Your task to perform on an android device: toggle data saver in the chrome app Image 0: 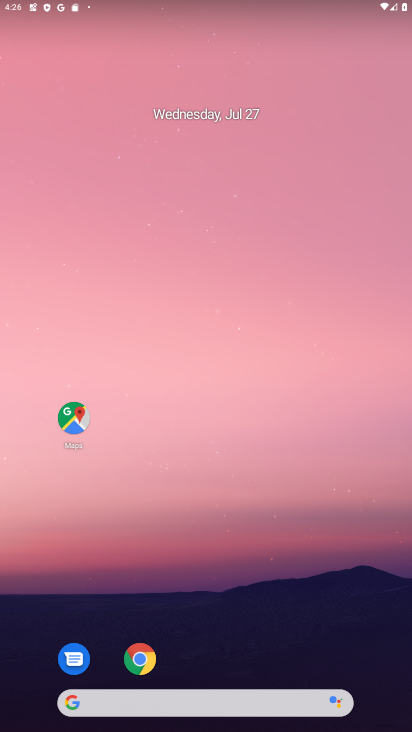
Step 0: click (148, 658)
Your task to perform on an android device: toggle data saver in the chrome app Image 1: 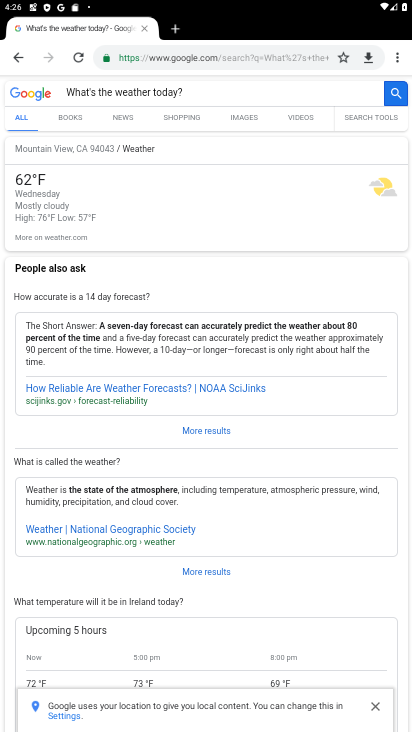
Step 1: click (400, 53)
Your task to perform on an android device: toggle data saver in the chrome app Image 2: 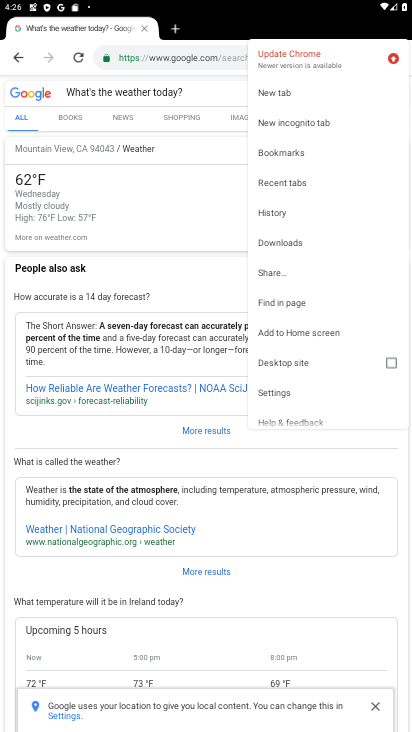
Step 2: click (314, 386)
Your task to perform on an android device: toggle data saver in the chrome app Image 3: 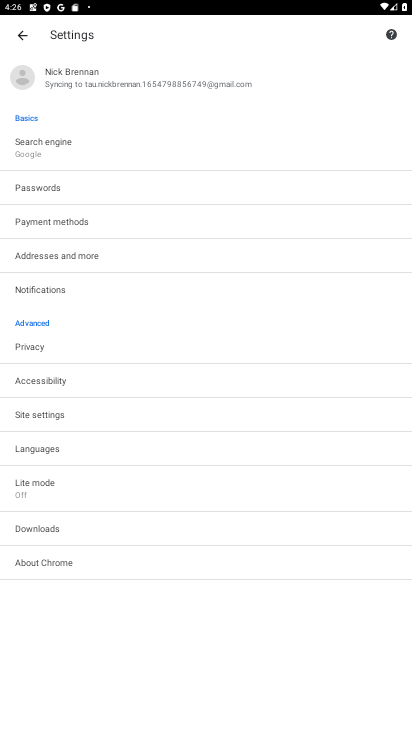
Step 3: click (140, 478)
Your task to perform on an android device: toggle data saver in the chrome app Image 4: 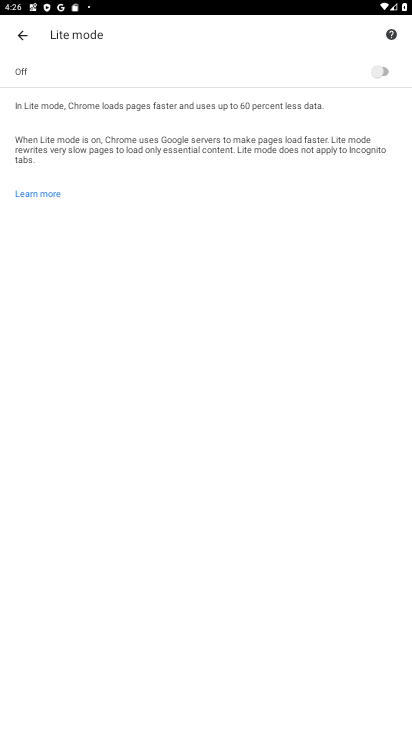
Step 4: click (383, 74)
Your task to perform on an android device: toggle data saver in the chrome app Image 5: 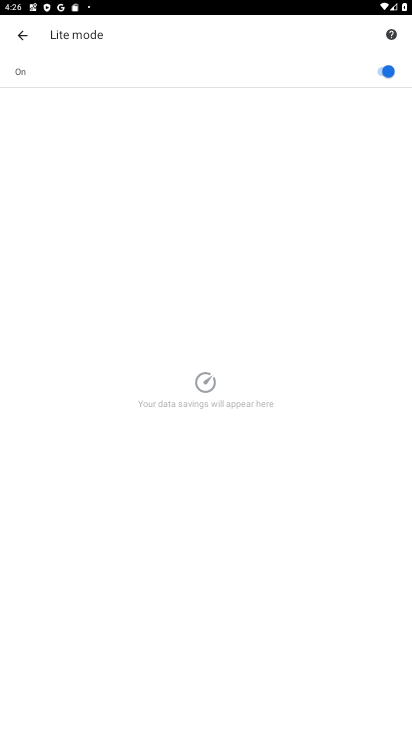
Step 5: task complete